Your task to perform on an android device: Open battery settings Image 0: 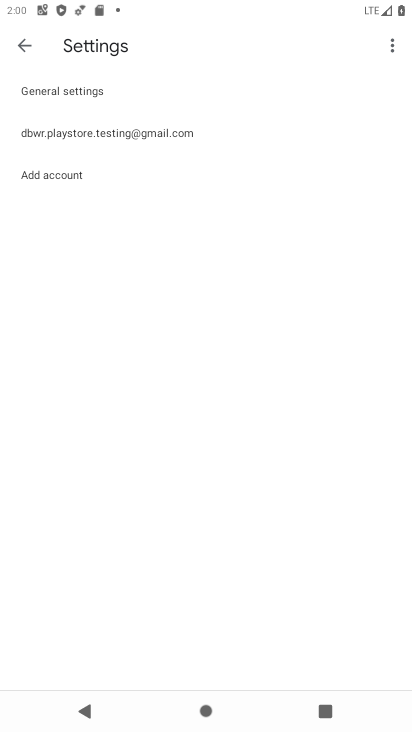
Step 0: press home button
Your task to perform on an android device: Open battery settings Image 1: 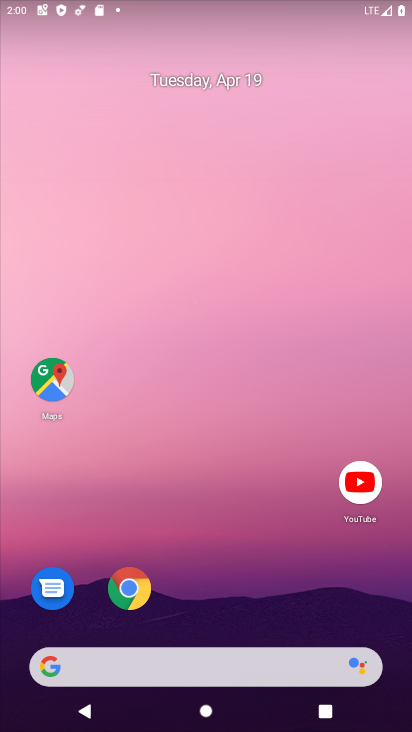
Step 1: drag from (253, 528) to (297, 79)
Your task to perform on an android device: Open battery settings Image 2: 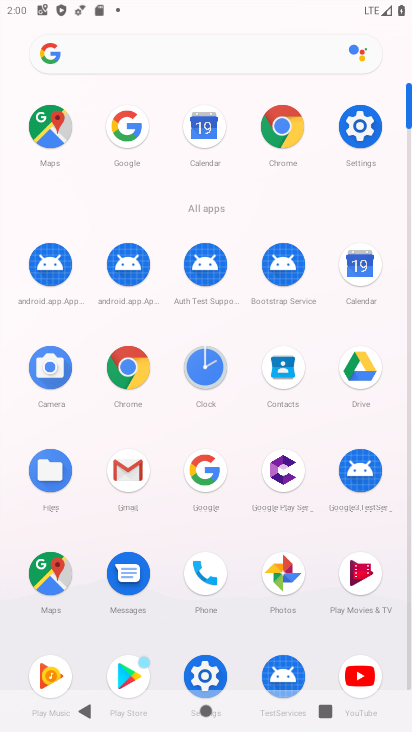
Step 2: click (368, 140)
Your task to perform on an android device: Open battery settings Image 3: 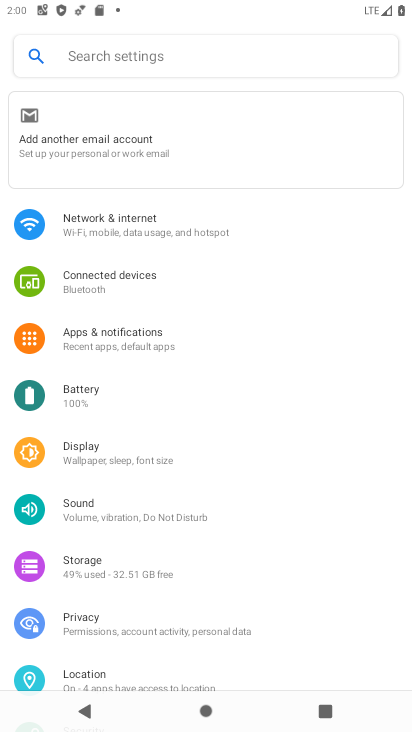
Step 3: click (105, 390)
Your task to perform on an android device: Open battery settings Image 4: 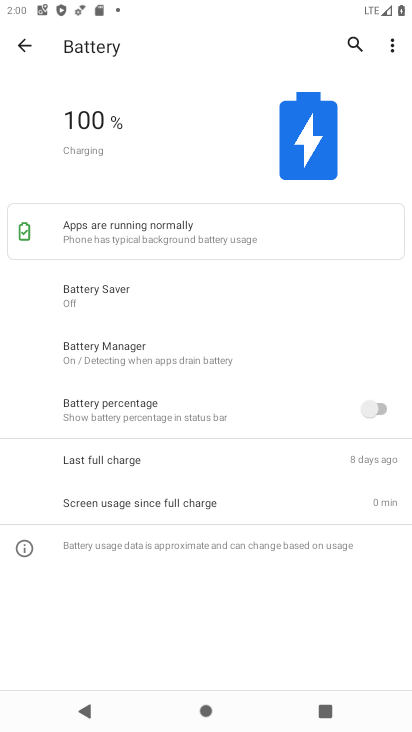
Step 4: task complete